Your task to perform on an android device: Open Chrome and go to the settings page Image 0: 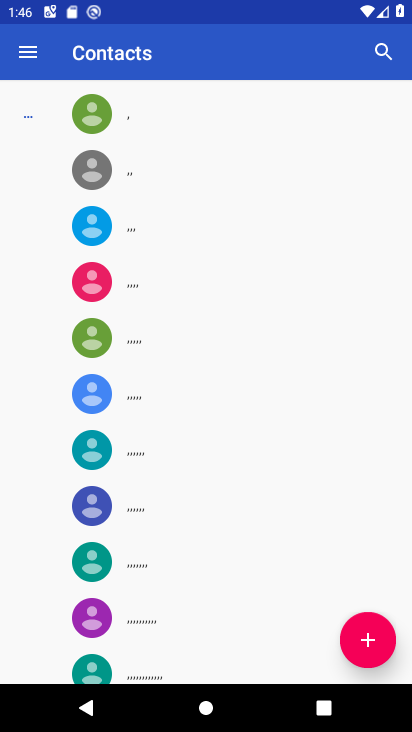
Step 0: press home button
Your task to perform on an android device: Open Chrome and go to the settings page Image 1: 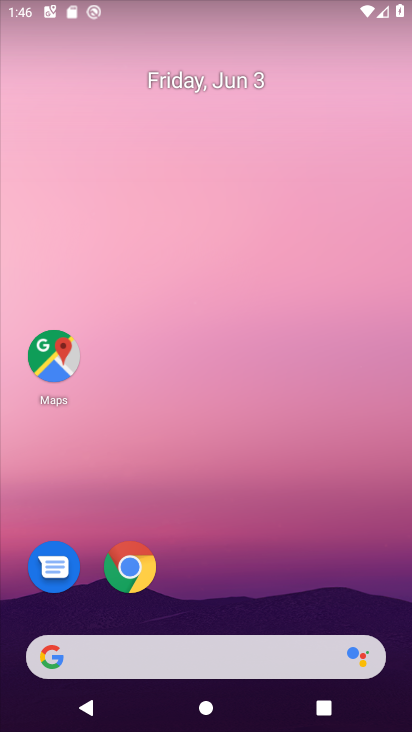
Step 1: drag from (204, 640) to (201, 350)
Your task to perform on an android device: Open Chrome and go to the settings page Image 2: 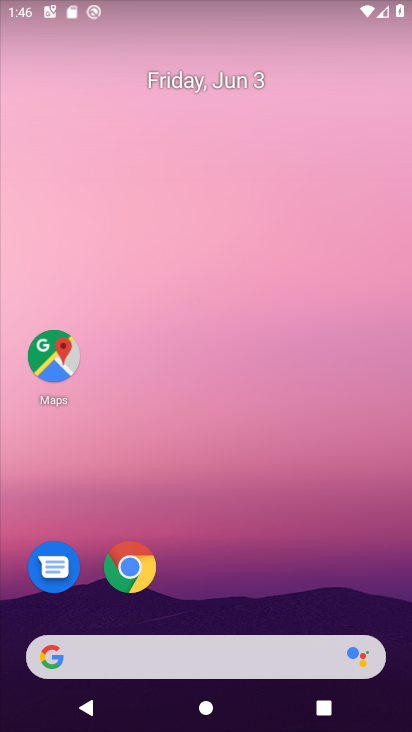
Step 2: click (130, 565)
Your task to perform on an android device: Open Chrome and go to the settings page Image 3: 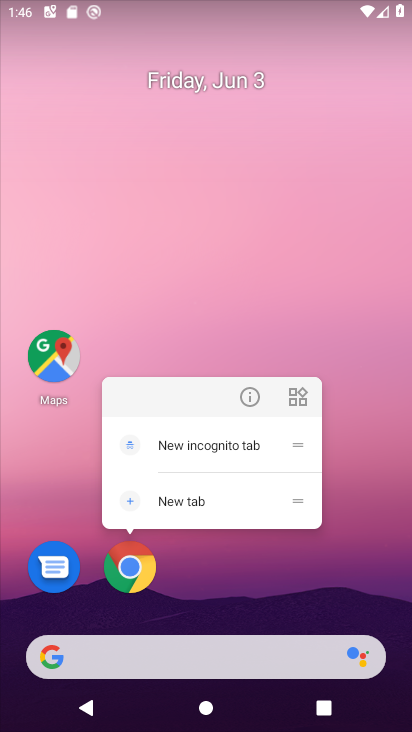
Step 3: click (122, 554)
Your task to perform on an android device: Open Chrome and go to the settings page Image 4: 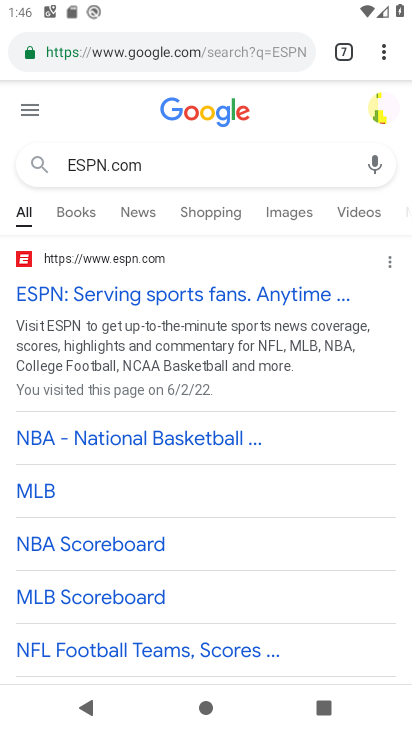
Step 4: click (382, 46)
Your task to perform on an android device: Open Chrome and go to the settings page Image 5: 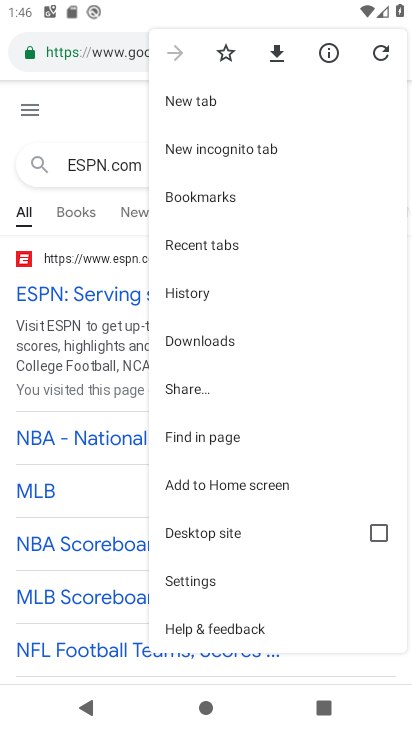
Step 5: click (199, 574)
Your task to perform on an android device: Open Chrome and go to the settings page Image 6: 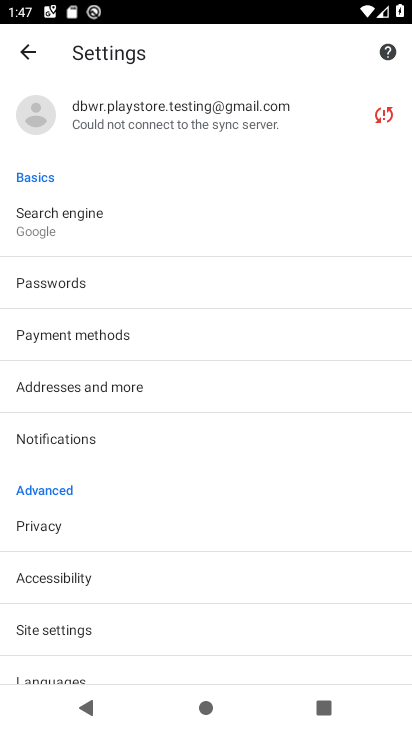
Step 6: click (20, 57)
Your task to perform on an android device: Open Chrome and go to the settings page Image 7: 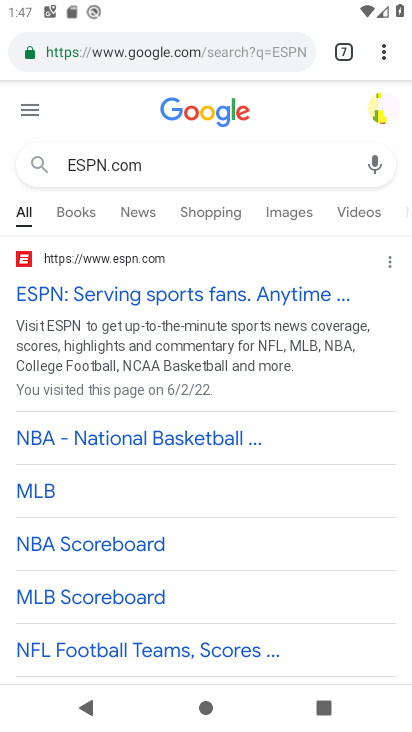
Step 7: task complete